Your task to perform on an android device: delete a single message in the gmail app Image 0: 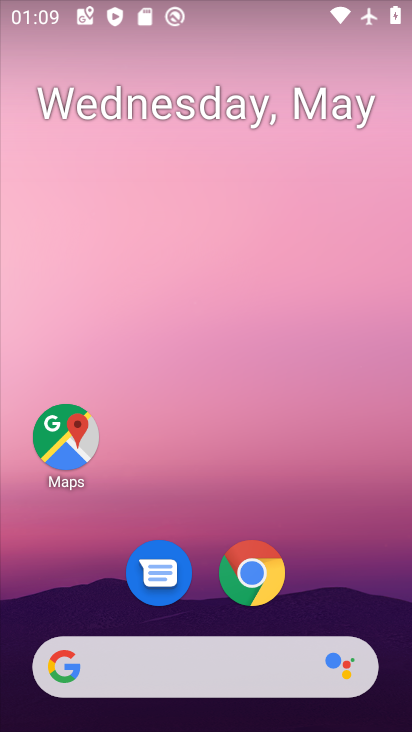
Step 0: drag from (305, 524) to (250, 274)
Your task to perform on an android device: delete a single message in the gmail app Image 1: 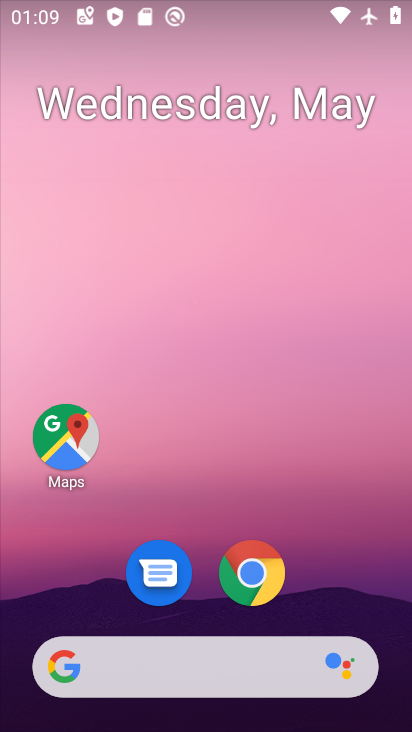
Step 1: drag from (246, 564) to (237, 187)
Your task to perform on an android device: delete a single message in the gmail app Image 2: 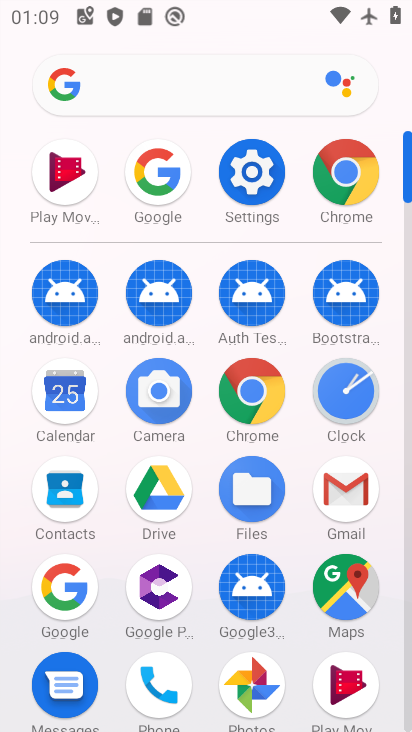
Step 2: click (363, 476)
Your task to perform on an android device: delete a single message in the gmail app Image 3: 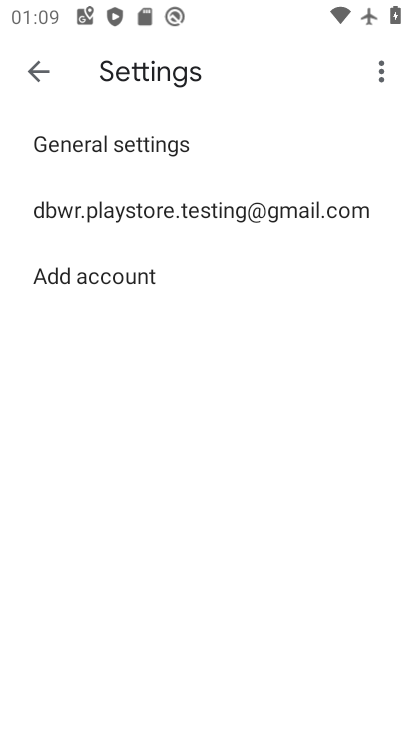
Step 3: click (32, 73)
Your task to perform on an android device: delete a single message in the gmail app Image 4: 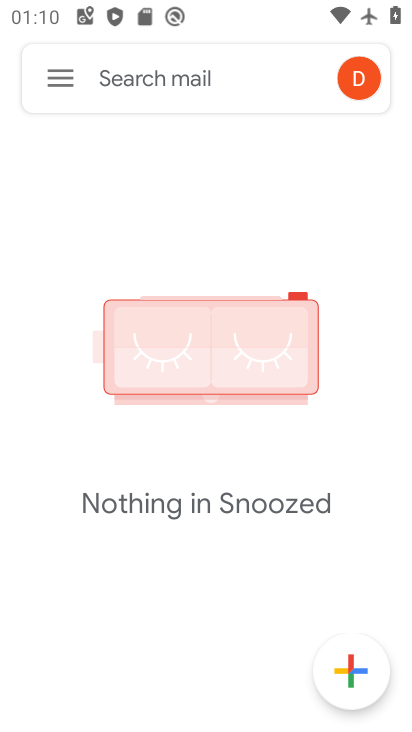
Step 4: task complete